Your task to perform on an android device: Search for Mexican restaurants on Maps Image 0: 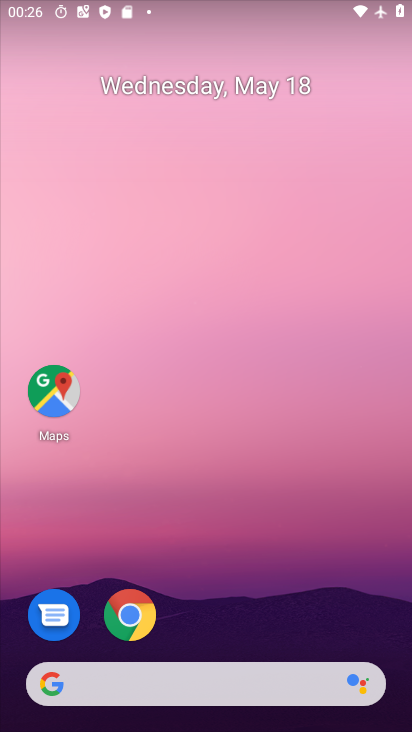
Step 0: click (59, 400)
Your task to perform on an android device: Search for Mexican restaurants on Maps Image 1: 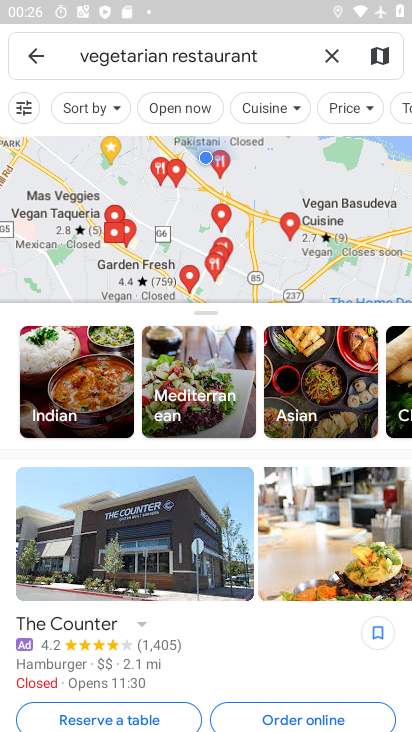
Step 1: click (326, 57)
Your task to perform on an android device: Search for Mexican restaurants on Maps Image 2: 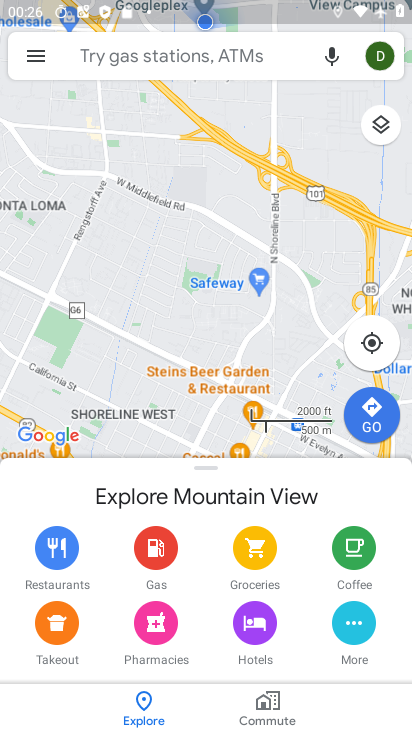
Step 2: click (187, 64)
Your task to perform on an android device: Search for Mexican restaurants on Maps Image 3: 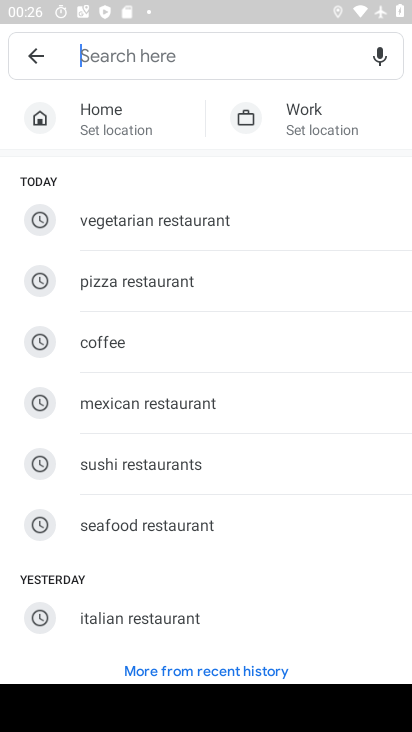
Step 3: click (201, 400)
Your task to perform on an android device: Search for Mexican restaurants on Maps Image 4: 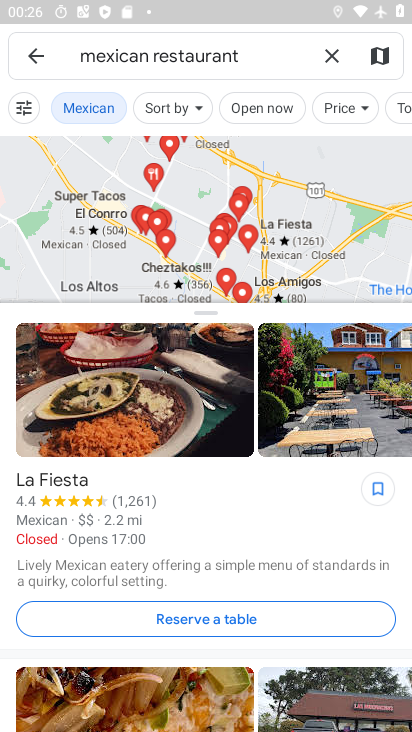
Step 4: task complete